Your task to perform on an android device: Open Google Maps and go to "Timeline" Image 0: 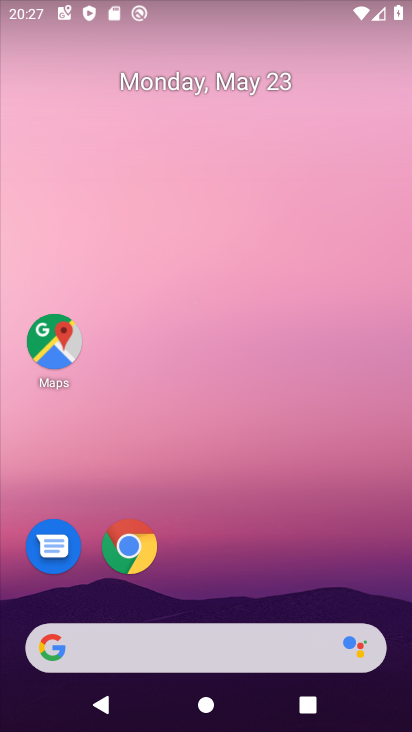
Step 0: drag from (367, 574) to (342, 215)
Your task to perform on an android device: Open Google Maps and go to "Timeline" Image 1: 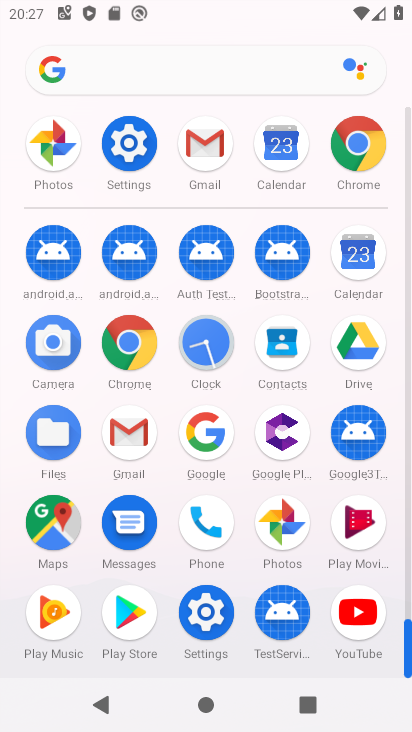
Step 1: click (51, 536)
Your task to perform on an android device: Open Google Maps and go to "Timeline" Image 2: 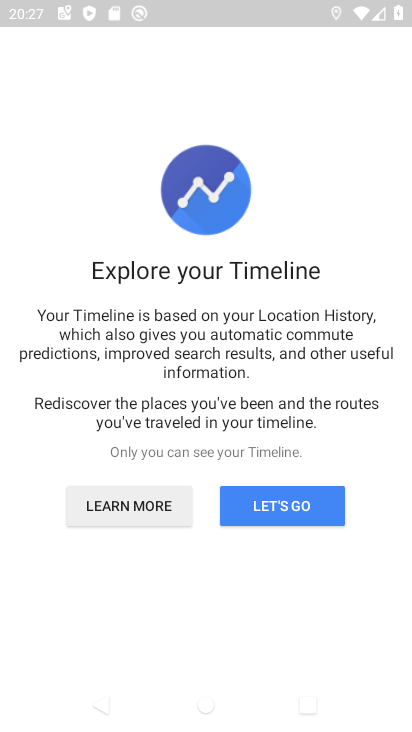
Step 2: task complete